Your task to perform on an android device: Search for usb-c on walmart.com, select the first entry, and add it to the cart. Image 0: 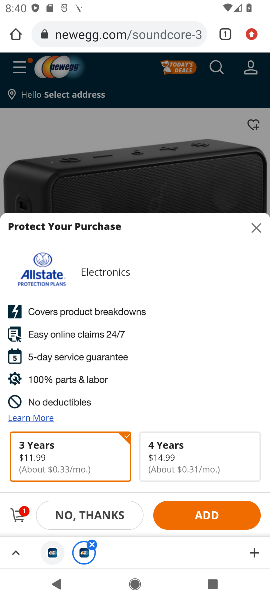
Step 0: press home button
Your task to perform on an android device: Search for usb-c on walmart.com, select the first entry, and add it to the cart. Image 1: 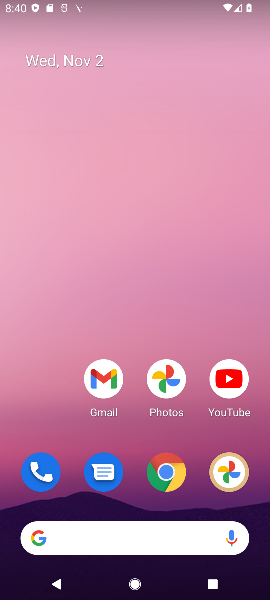
Step 1: click (166, 472)
Your task to perform on an android device: Search for usb-c on walmart.com, select the first entry, and add it to the cart. Image 2: 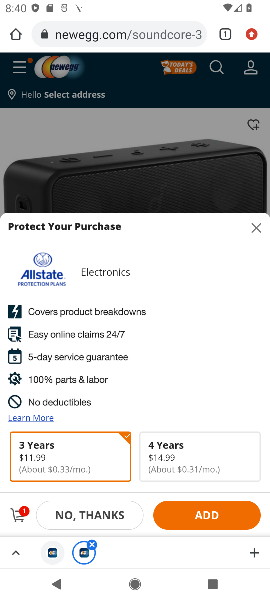
Step 2: click (155, 35)
Your task to perform on an android device: Search for usb-c on walmart.com, select the first entry, and add it to the cart. Image 3: 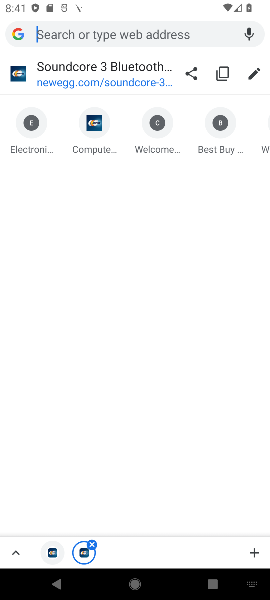
Step 3: type "walmart.com"
Your task to perform on an android device: Search for usb-c on walmart.com, select the first entry, and add it to the cart. Image 4: 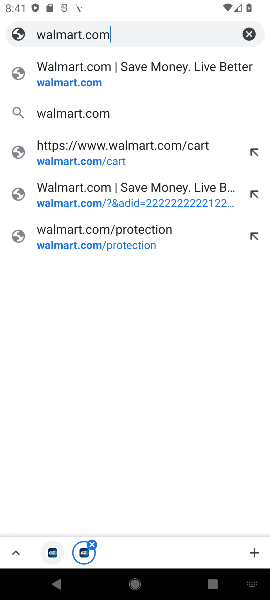
Step 4: click (68, 76)
Your task to perform on an android device: Search for usb-c on walmart.com, select the first entry, and add it to the cart. Image 5: 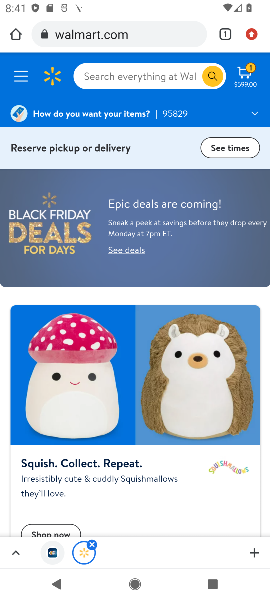
Step 5: click (137, 77)
Your task to perform on an android device: Search for usb-c on walmart.com, select the first entry, and add it to the cart. Image 6: 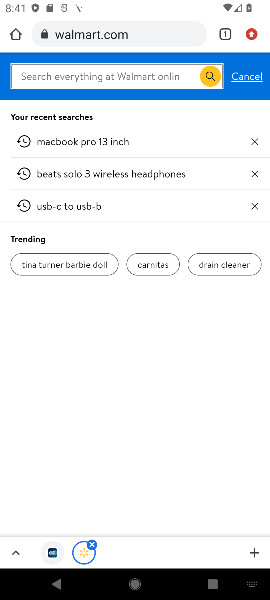
Step 6: type "usb-c"
Your task to perform on an android device: Search for usb-c on walmart.com, select the first entry, and add it to the cart. Image 7: 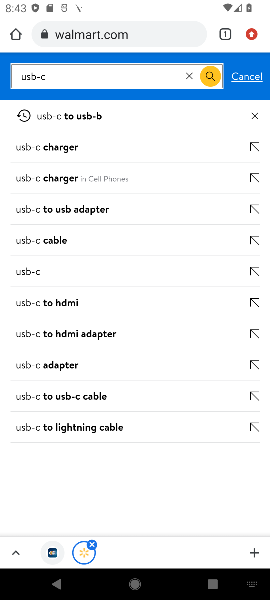
Step 7: click (58, 113)
Your task to perform on an android device: Search for usb-c on walmart.com, select the first entry, and add it to the cart. Image 8: 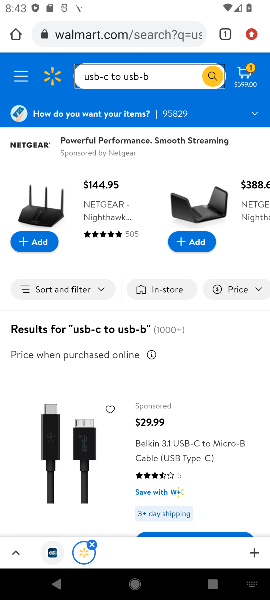
Step 8: drag from (214, 468) to (168, 206)
Your task to perform on an android device: Search for usb-c on walmart.com, select the first entry, and add it to the cart. Image 9: 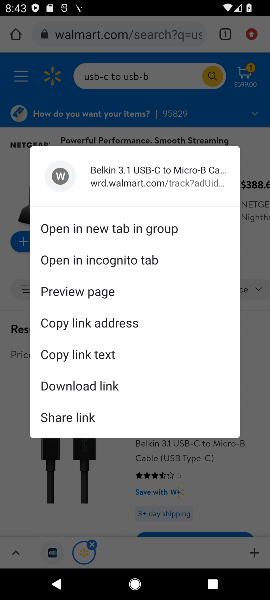
Step 9: click (254, 309)
Your task to perform on an android device: Search for usb-c on walmart.com, select the first entry, and add it to the cart. Image 10: 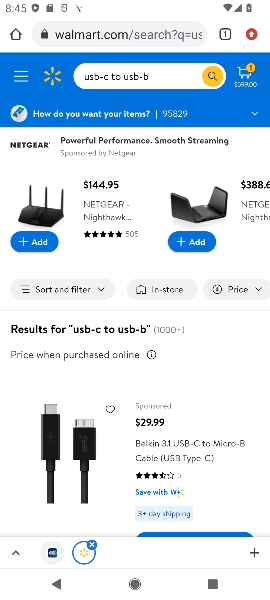
Step 10: drag from (187, 476) to (168, 148)
Your task to perform on an android device: Search for usb-c on walmart.com, select the first entry, and add it to the cart. Image 11: 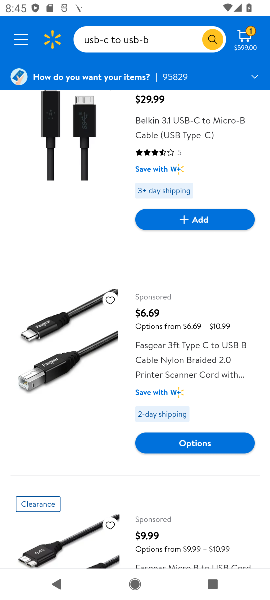
Step 11: click (209, 219)
Your task to perform on an android device: Search for usb-c on walmart.com, select the first entry, and add it to the cart. Image 12: 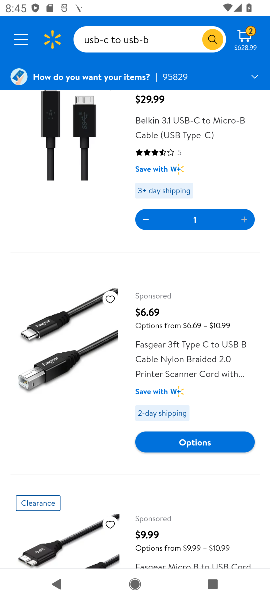
Step 12: task complete